Your task to perform on an android device: check google app version Image 0: 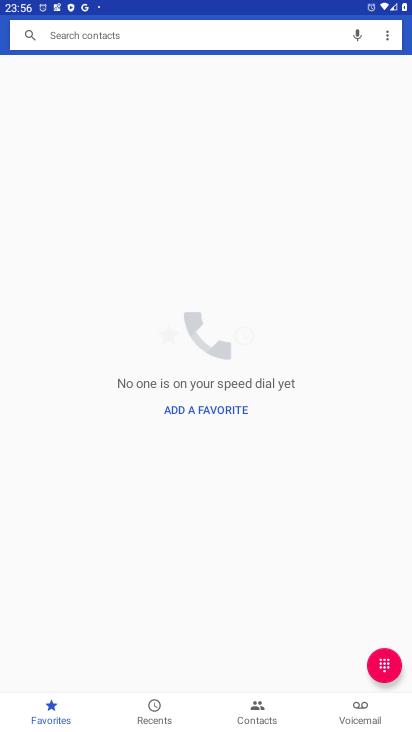
Step 0: press home button
Your task to perform on an android device: check google app version Image 1: 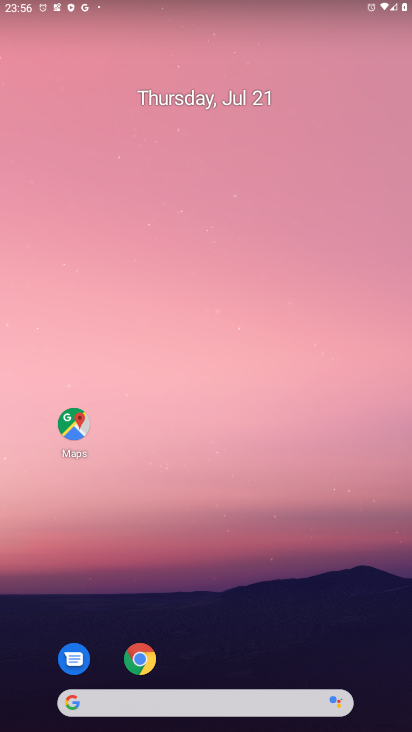
Step 1: drag from (157, 701) to (230, 198)
Your task to perform on an android device: check google app version Image 2: 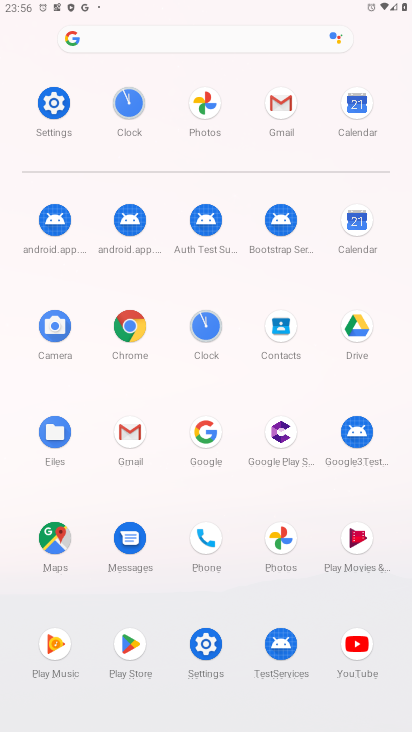
Step 2: click (202, 431)
Your task to perform on an android device: check google app version Image 3: 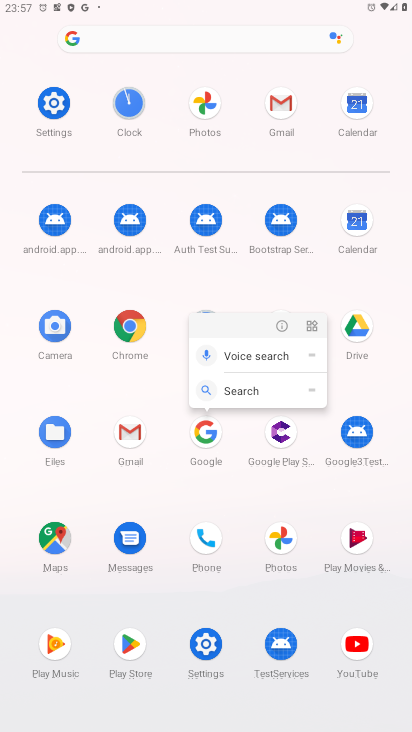
Step 3: click (282, 324)
Your task to perform on an android device: check google app version Image 4: 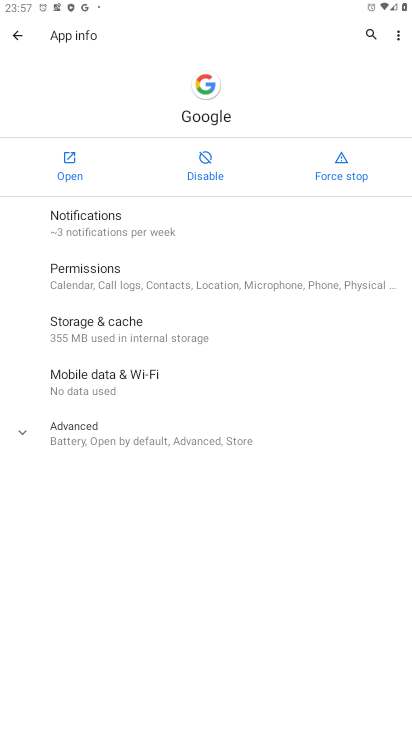
Step 4: click (117, 437)
Your task to perform on an android device: check google app version Image 5: 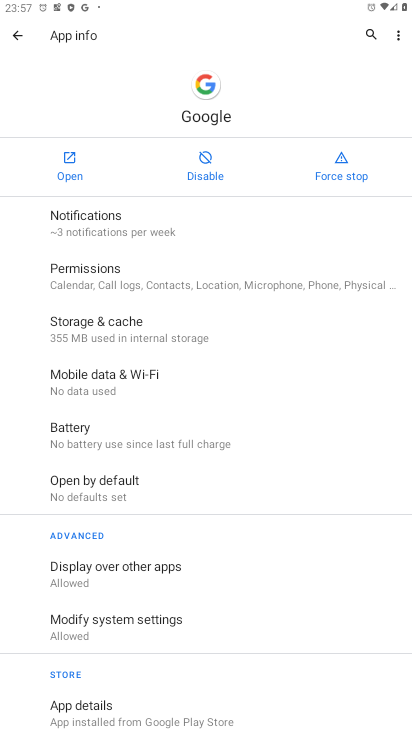
Step 5: task complete